Your task to perform on an android device: What's the weather going to be tomorrow? Image 0: 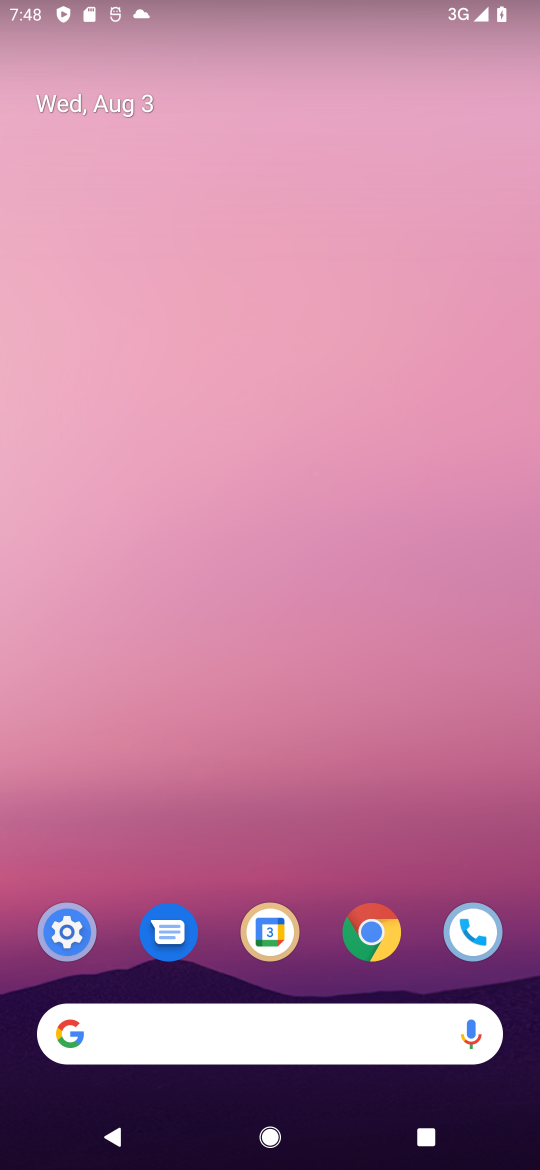
Step 0: click (219, 1036)
Your task to perform on an android device: What's the weather going to be tomorrow? Image 1: 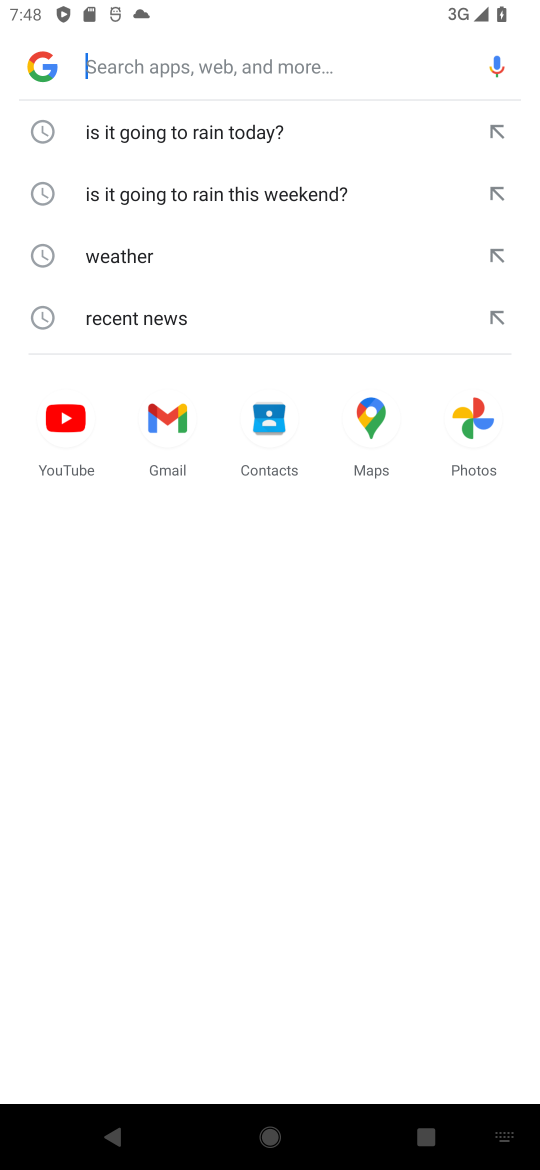
Step 1: type "What's the weather going to be tomorrow?"
Your task to perform on an android device: What's the weather going to be tomorrow? Image 2: 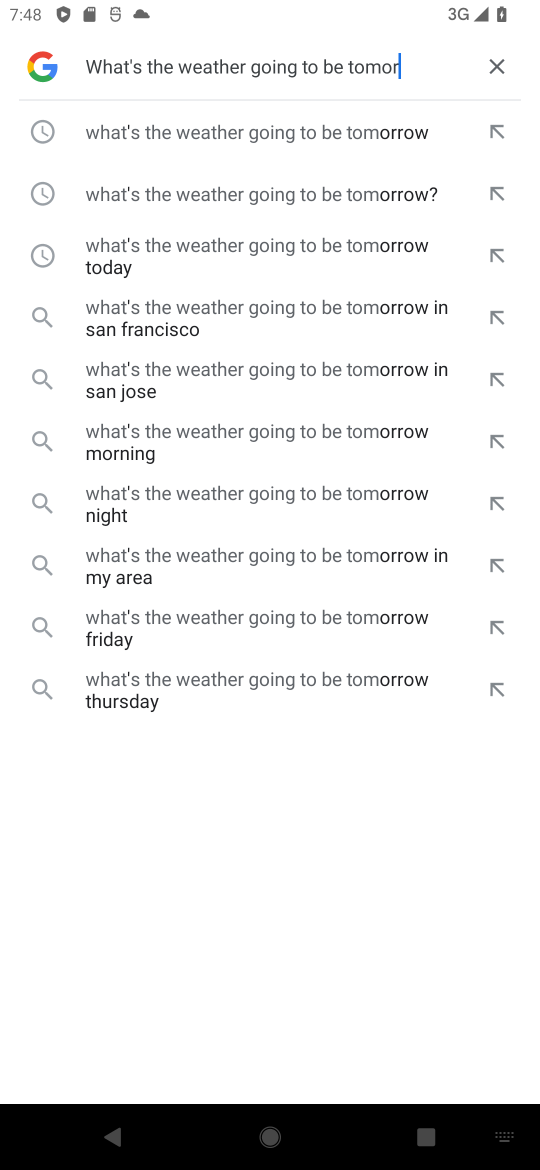
Step 2: press enter
Your task to perform on an android device: What's the weather going to be tomorrow? Image 3: 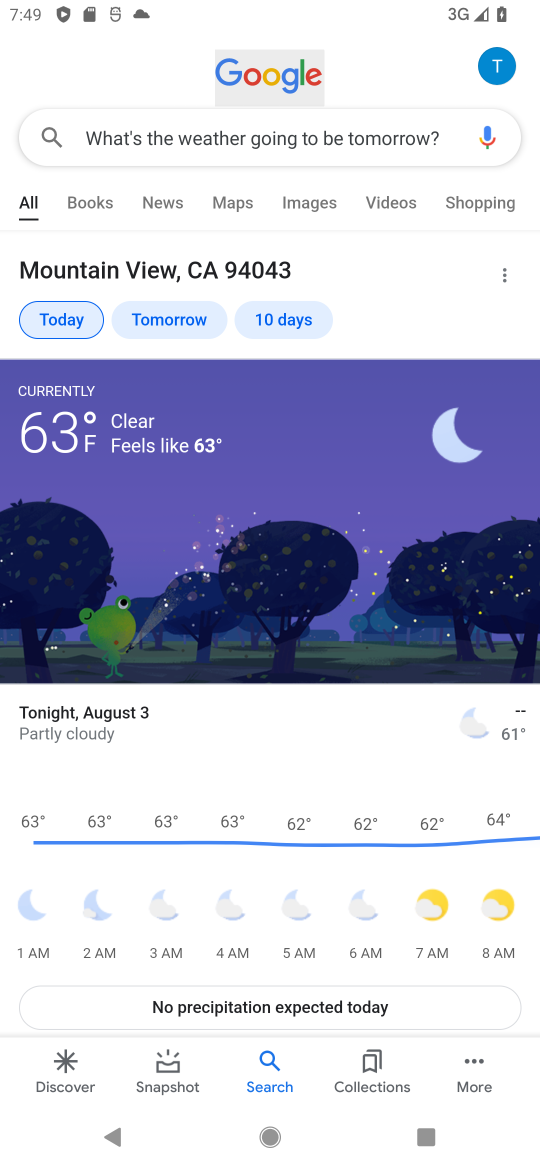
Step 3: task complete